Your task to perform on an android device: Go to Android settings Image 0: 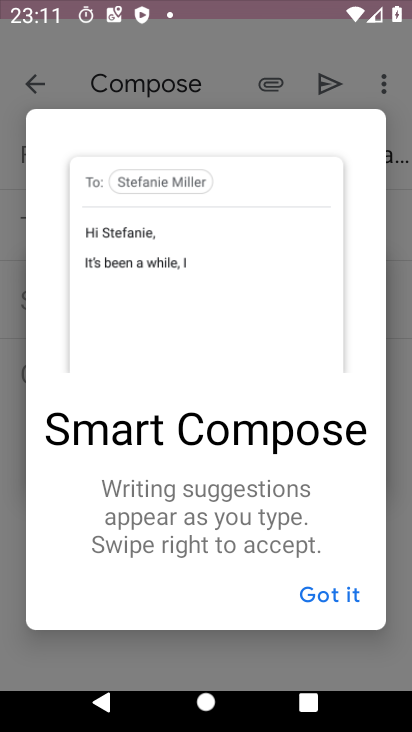
Step 0: click (304, 147)
Your task to perform on an android device: Go to Android settings Image 1: 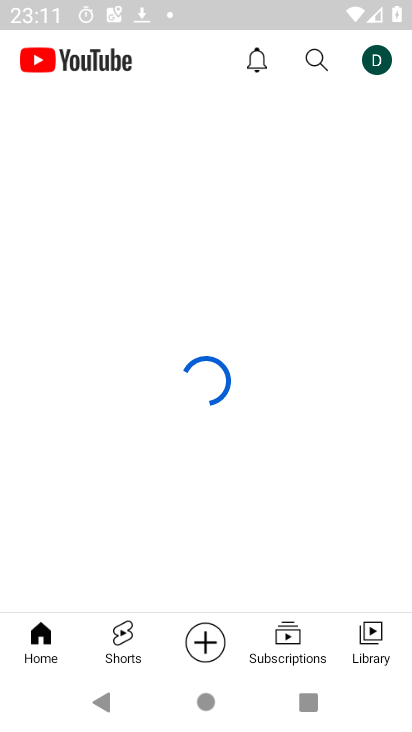
Step 1: click (327, 206)
Your task to perform on an android device: Go to Android settings Image 2: 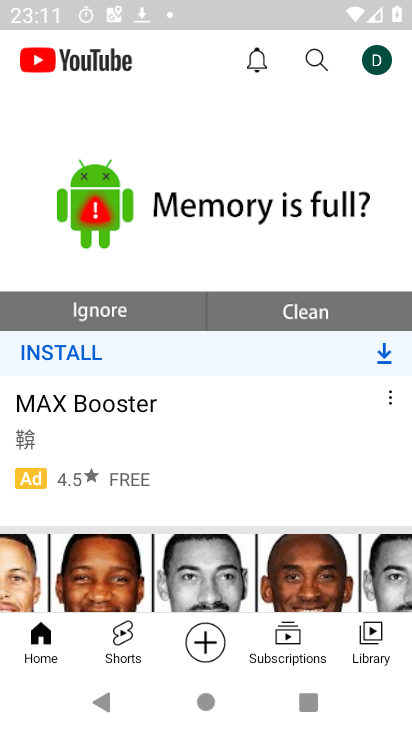
Step 2: drag from (236, 483) to (377, 179)
Your task to perform on an android device: Go to Android settings Image 3: 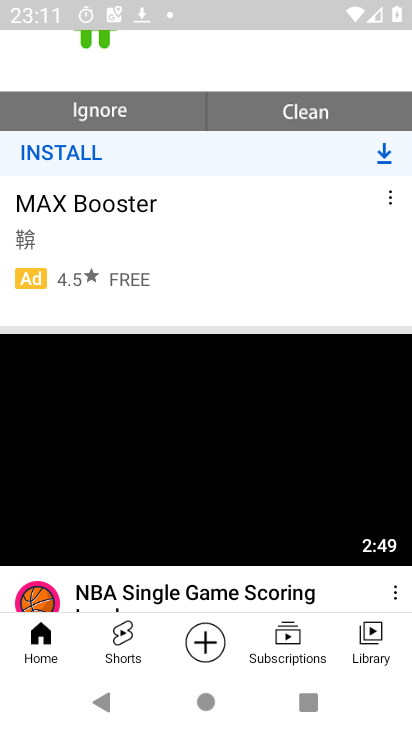
Step 3: press home button
Your task to perform on an android device: Go to Android settings Image 4: 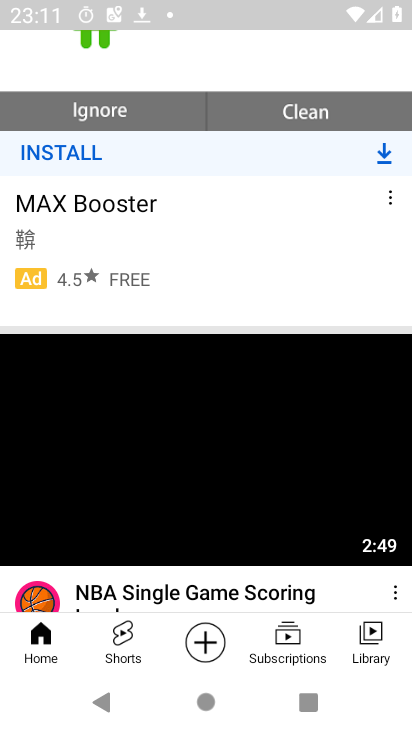
Step 4: click (290, 74)
Your task to perform on an android device: Go to Android settings Image 5: 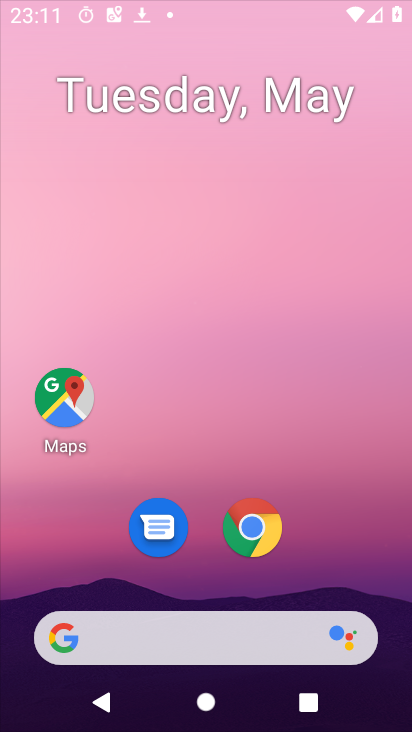
Step 5: drag from (248, 420) to (333, 47)
Your task to perform on an android device: Go to Android settings Image 6: 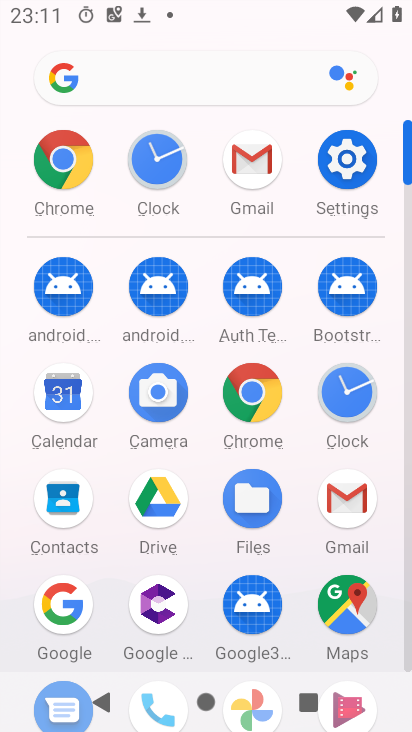
Step 6: click (335, 183)
Your task to perform on an android device: Go to Android settings Image 7: 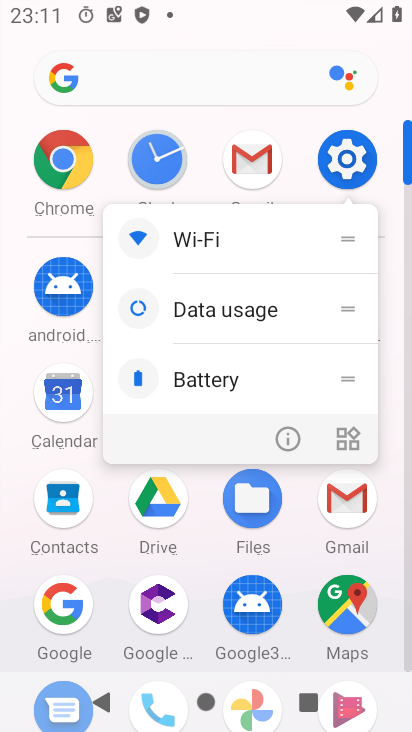
Step 7: click (278, 432)
Your task to perform on an android device: Go to Android settings Image 8: 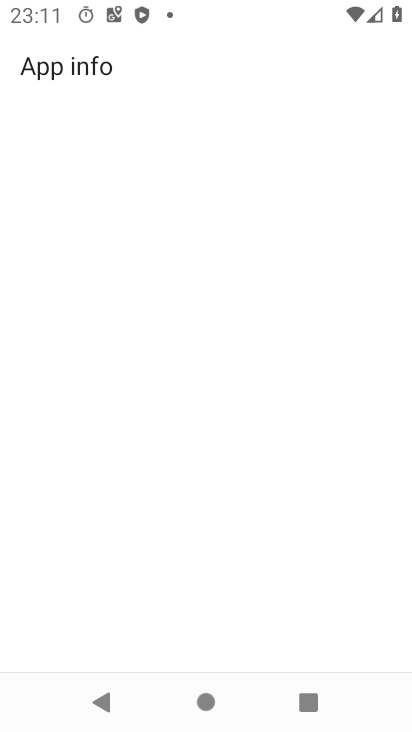
Step 8: drag from (137, 524) to (236, 16)
Your task to perform on an android device: Go to Android settings Image 9: 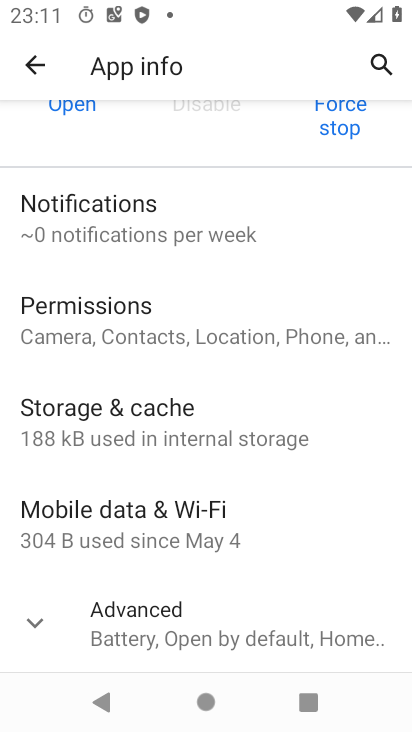
Step 9: click (60, 98)
Your task to perform on an android device: Go to Android settings Image 10: 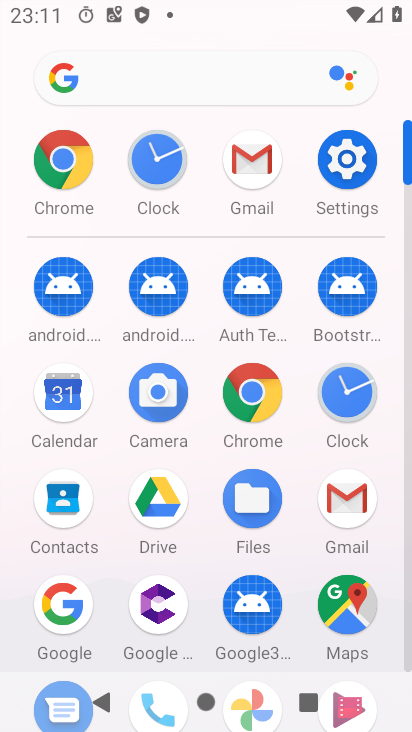
Step 10: click (342, 148)
Your task to perform on an android device: Go to Android settings Image 11: 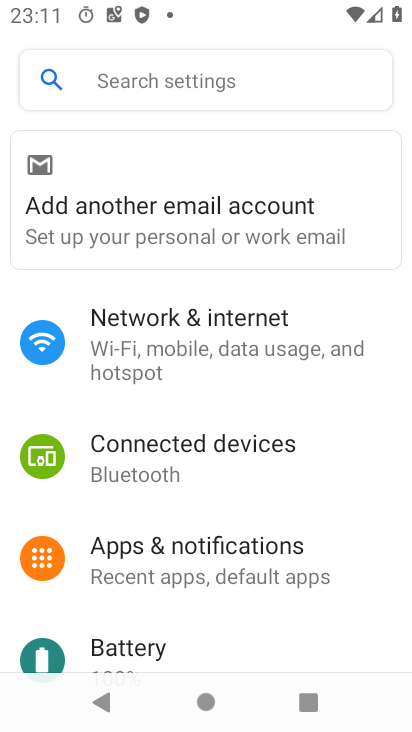
Step 11: drag from (258, 597) to (345, 152)
Your task to perform on an android device: Go to Android settings Image 12: 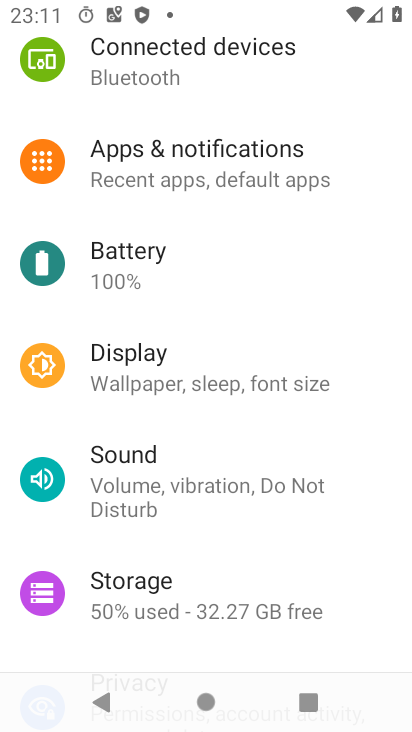
Step 12: drag from (209, 546) to (252, 219)
Your task to perform on an android device: Go to Android settings Image 13: 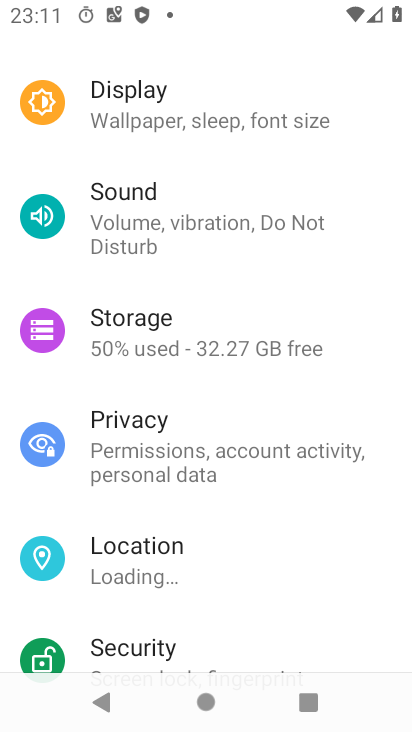
Step 13: drag from (212, 535) to (294, 67)
Your task to perform on an android device: Go to Android settings Image 14: 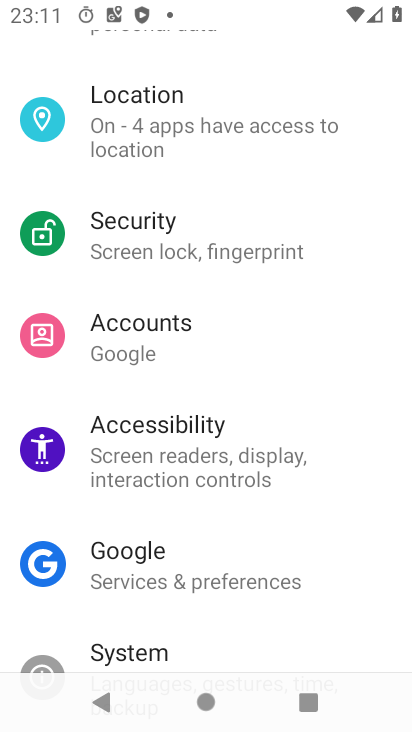
Step 14: drag from (219, 464) to (242, 191)
Your task to perform on an android device: Go to Android settings Image 15: 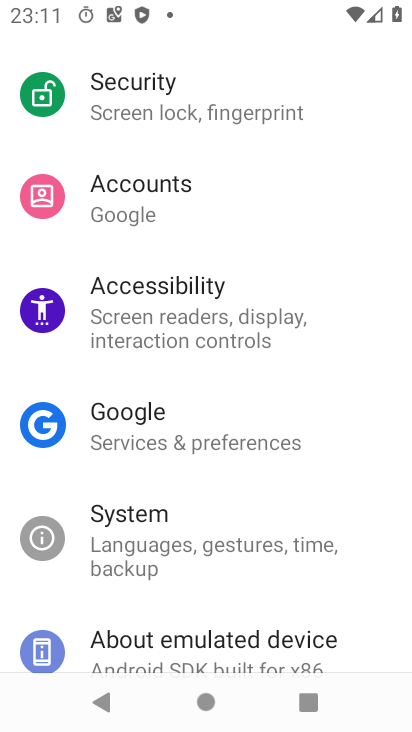
Step 15: drag from (211, 596) to (252, 139)
Your task to perform on an android device: Go to Android settings Image 16: 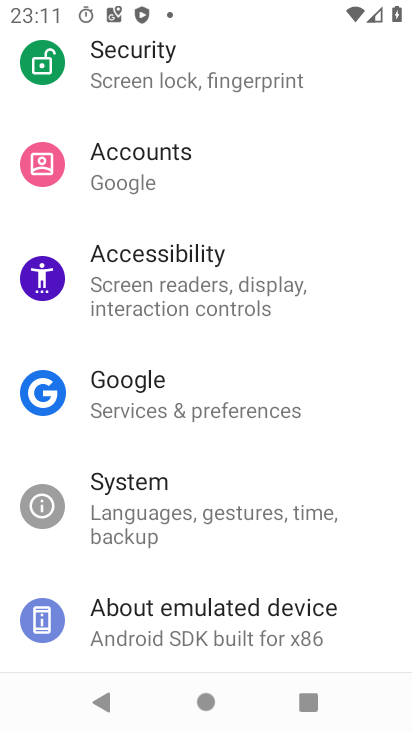
Step 16: click (190, 585)
Your task to perform on an android device: Go to Android settings Image 17: 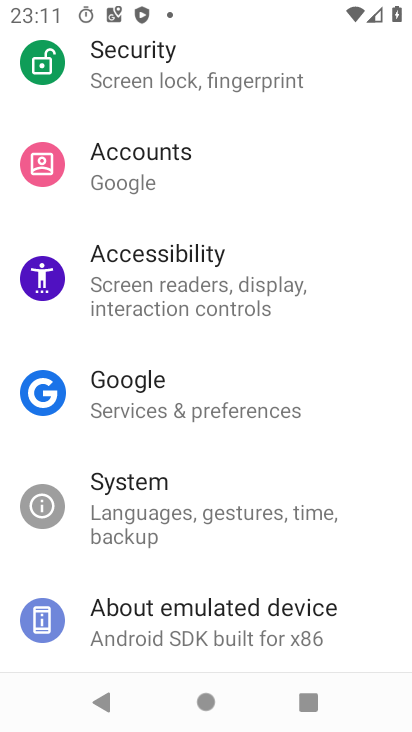
Step 17: click (190, 585)
Your task to perform on an android device: Go to Android settings Image 18: 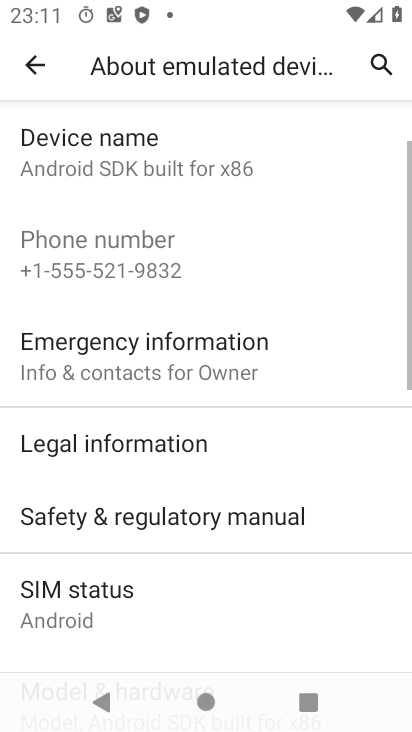
Step 18: drag from (188, 385) to (259, 19)
Your task to perform on an android device: Go to Android settings Image 19: 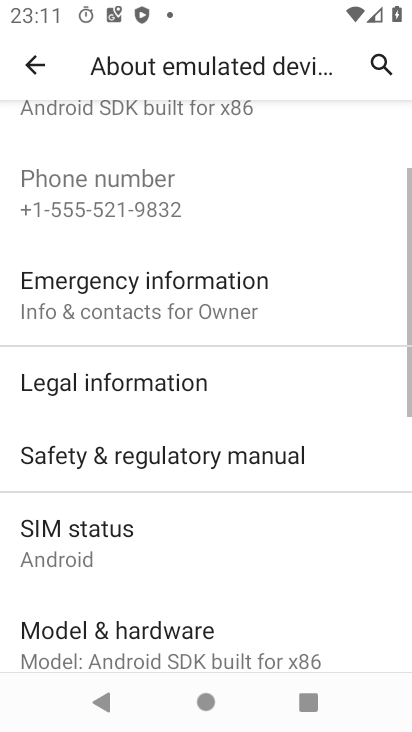
Step 19: drag from (224, 495) to (241, 183)
Your task to perform on an android device: Go to Android settings Image 20: 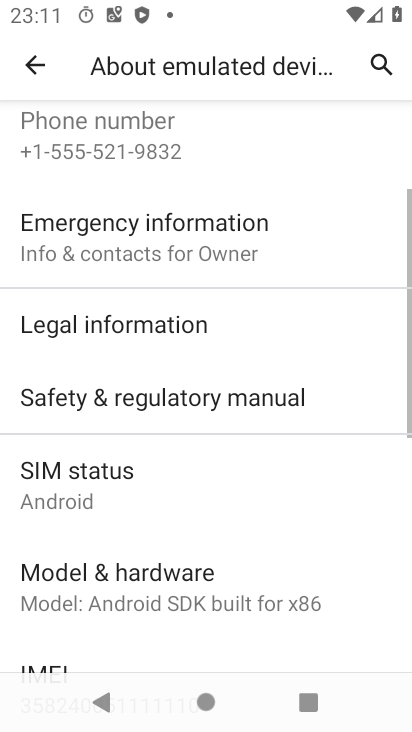
Step 20: drag from (193, 565) to (241, 92)
Your task to perform on an android device: Go to Android settings Image 21: 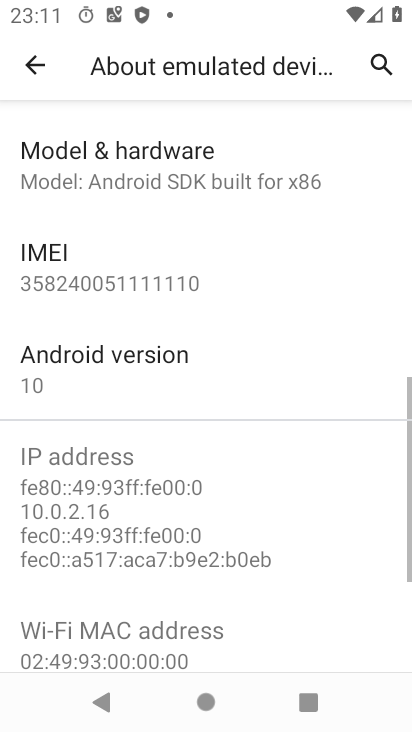
Step 21: drag from (225, 541) to (230, 316)
Your task to perform on an android device: Go to Android settings Image 22: 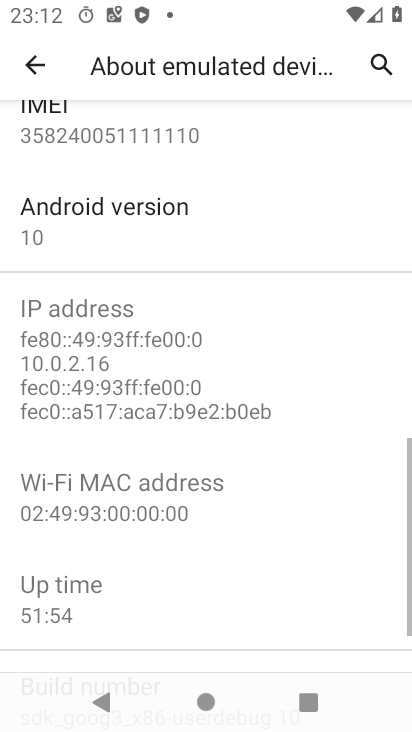
Step 22: click (148, 233)
Your task to perform on an android device: Go to Android settings Image 23: 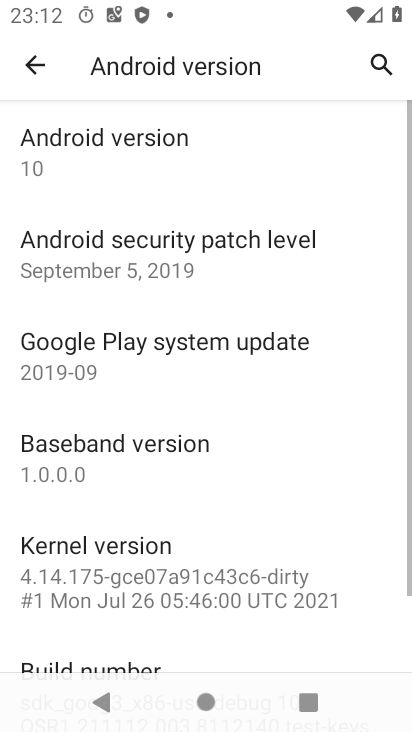
Step 23: drag from (202, 440) to (236, 254)
Your task to perform on an android device: Go to Android settings Image 24: 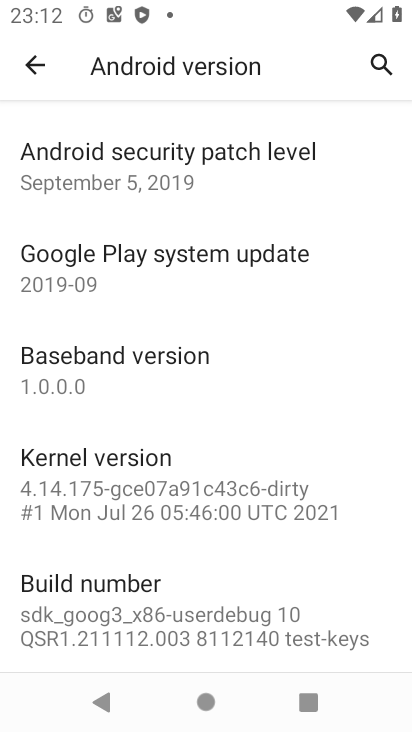
Step 24: drag from (294, 313) to (262, 717)
Your task to perform on an android device: Go to Android settings Image 25: 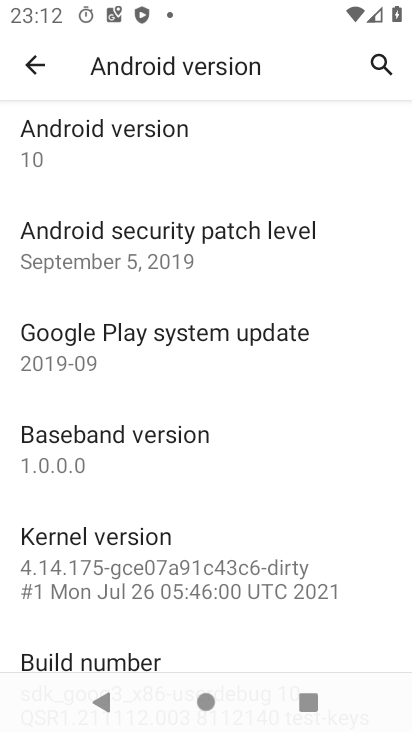
Step 25: click (105, 164)
Your task to perform on an android device: Go to Android settings Image 26: 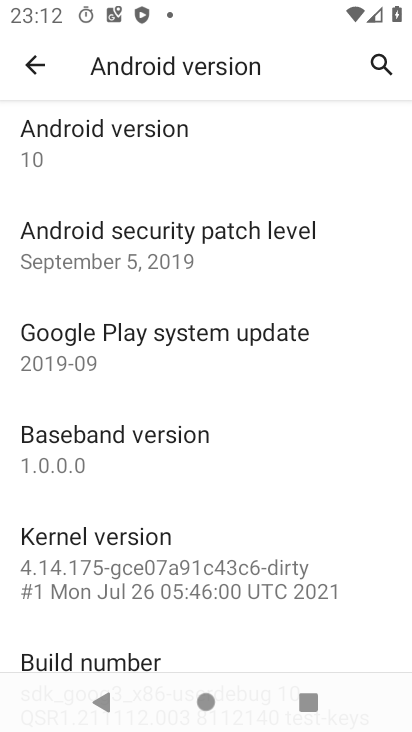
Step 26: task complete